Your task to perform on an android device: open app "Chime – Mobile Banking" (install if not already installed) Image 0: 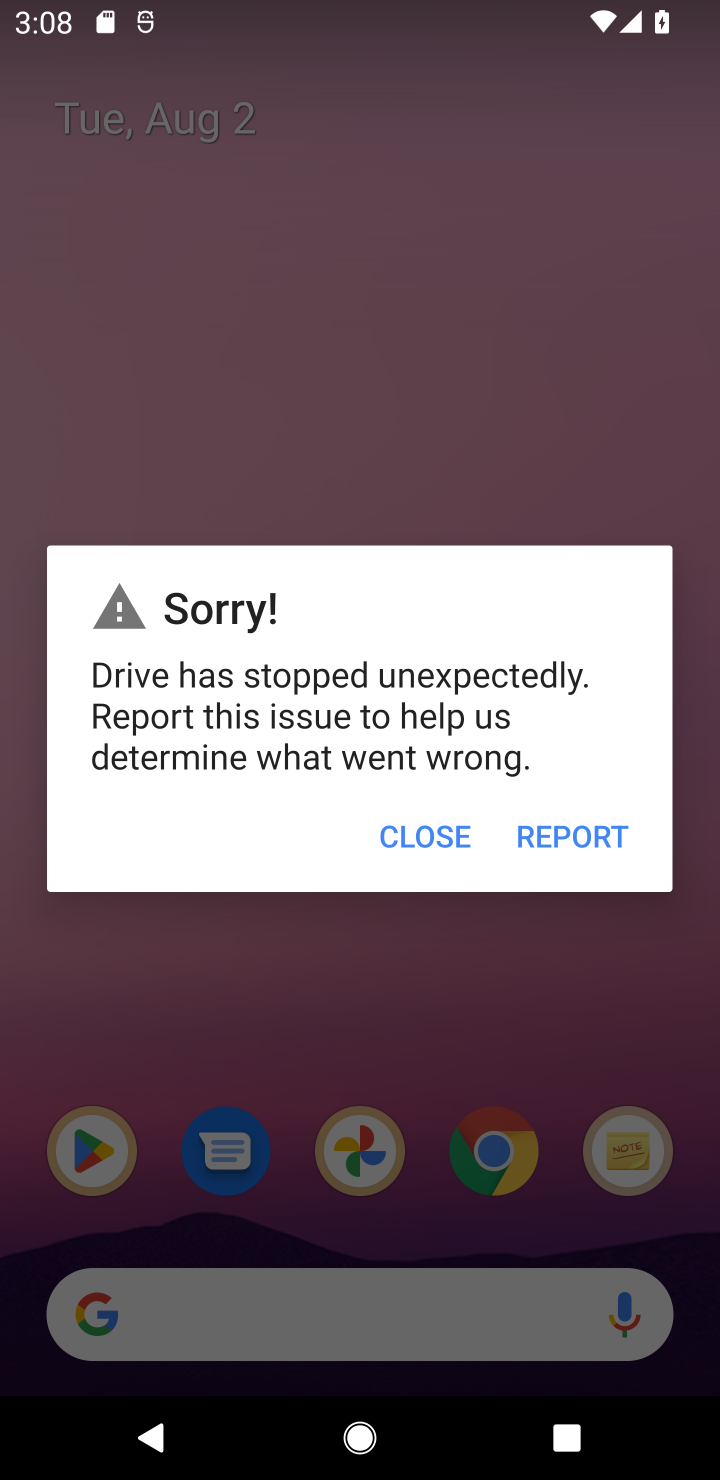
Step 0: press home button
Your task to perform on an android device: open app "Chime – Mobile Banking" (install if not already installed) Image 1: 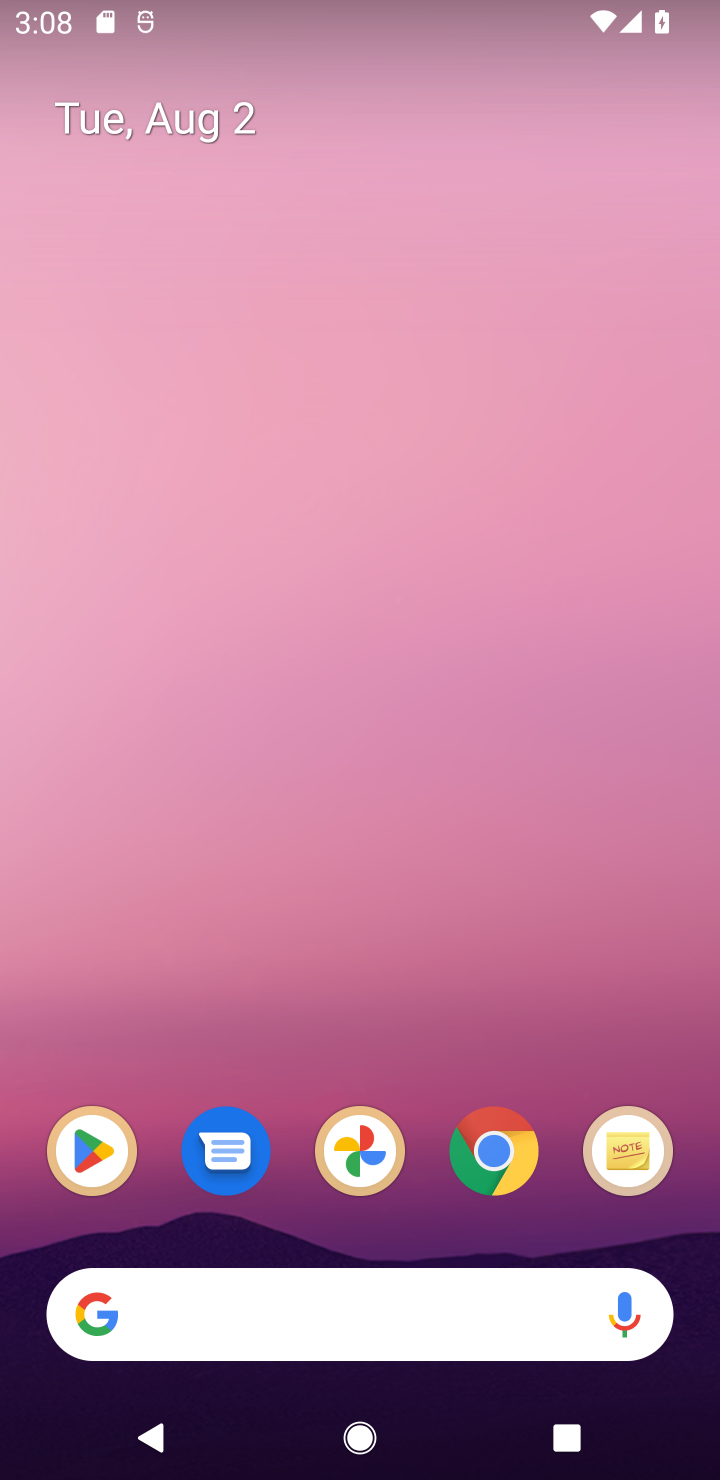
Step 1: click (97, 1153)
Your task to perform on an android device: open app "Chime – Mobile Banking" (install if not already installed) Image 2: 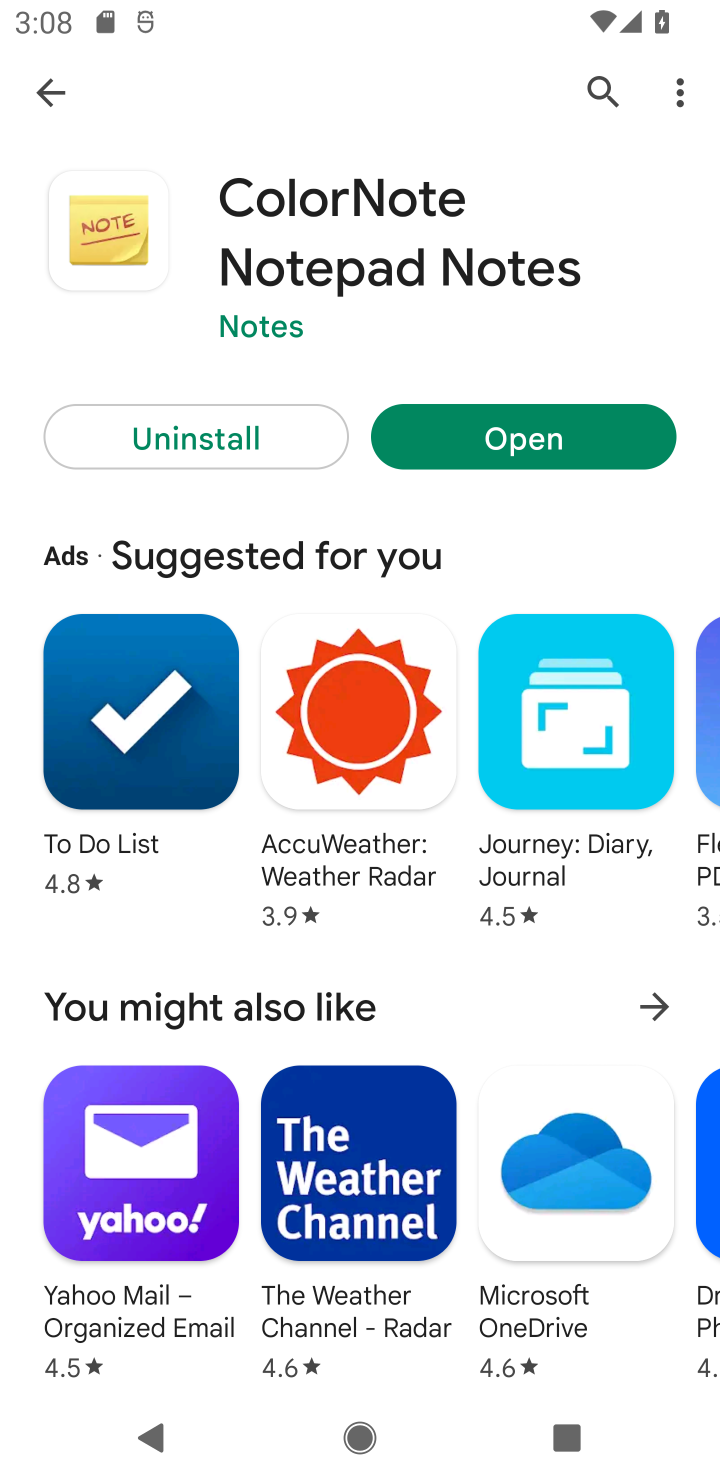
Step 2: click (588, 73)
Your task to perform on an android device: open app "Chime – Mobile Banking" (install if not already installed) Image 3: 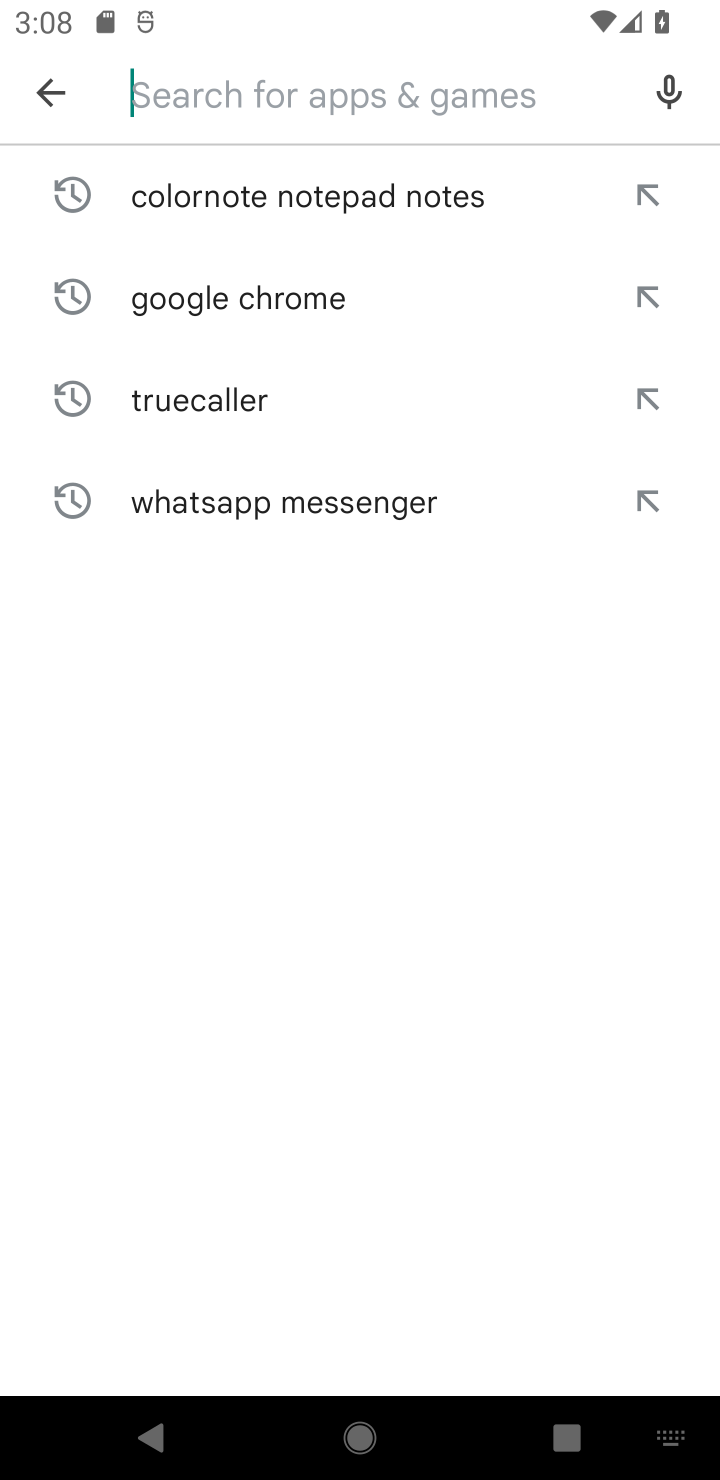
Step 3: type "chime - mobile banking"
Your task to perform on an android device: open app "Chime – Mobile Banking" (install if not already installed) Image 4: 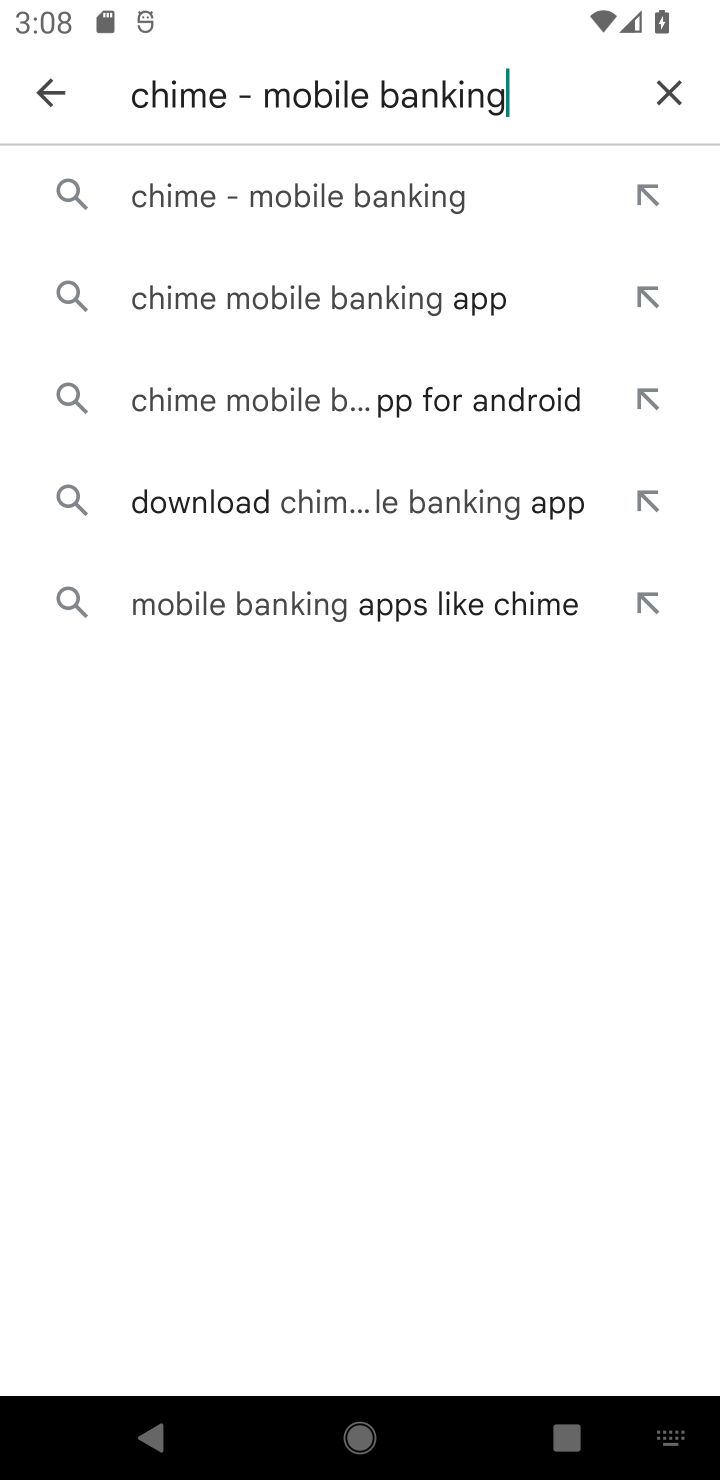
Step 4: click (455, 216)
Your task to perform on an android device: open app "Chime – Mobile Banking" (install if not already installed) Image 5: 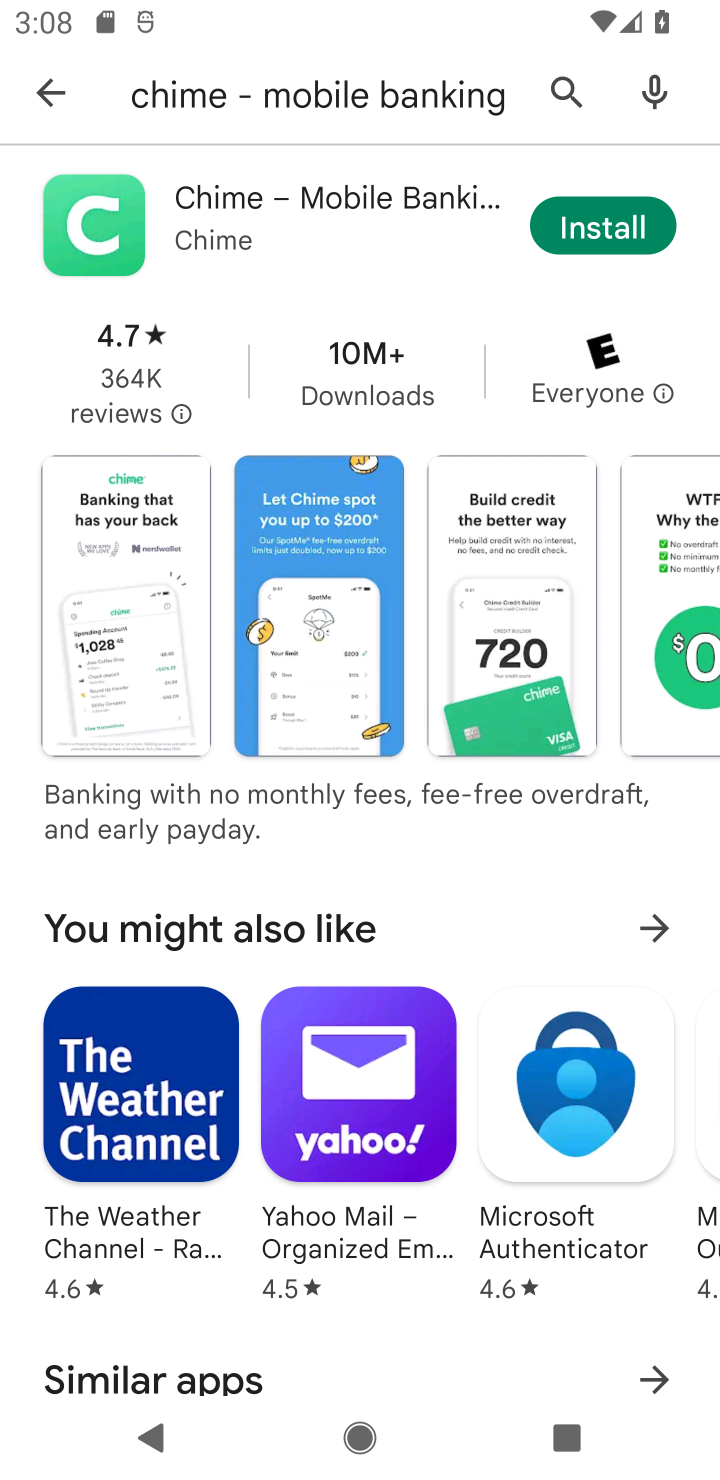
Step 5: click (398, 191)
Your task to perform on an android device: open app "Chime – Mobile Banking" (install if not already installed) Image 6: 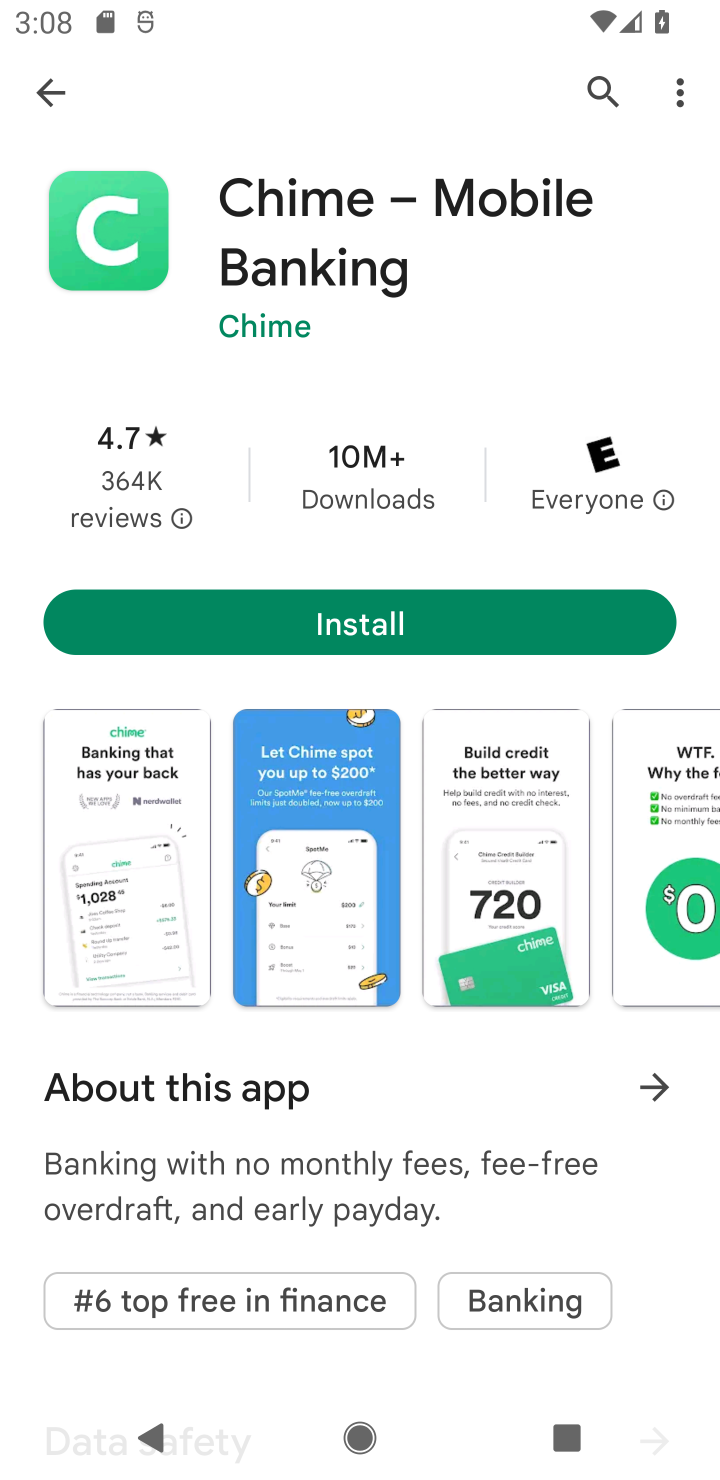
Step 6: click (302, 608)
Your task to perform on an android device: open app "Chime – Mobile Banking" (install if not already installed) Image 7: 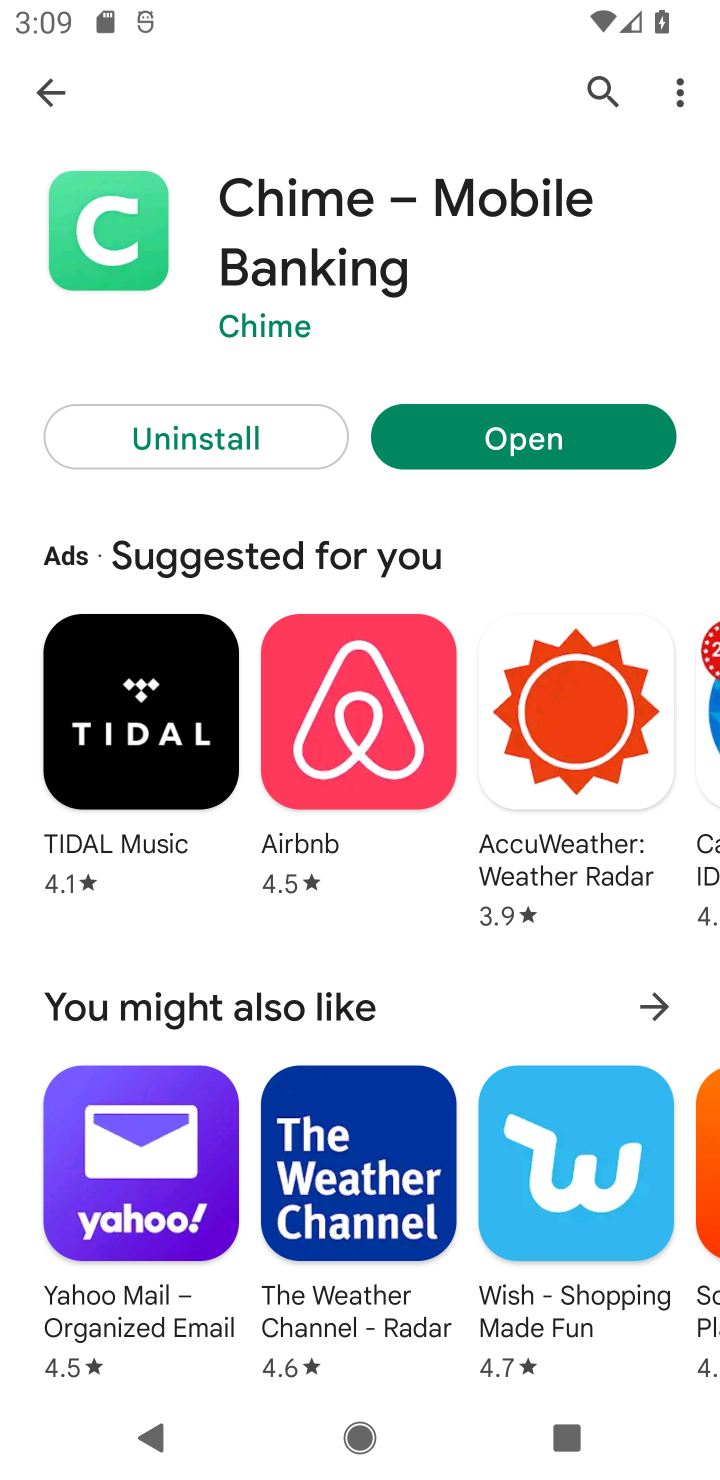
Step 7: click (538, 435)
Your task to perform on an android device: open app "Chime – Mobile Banking" (install if not already installed) Image 8: 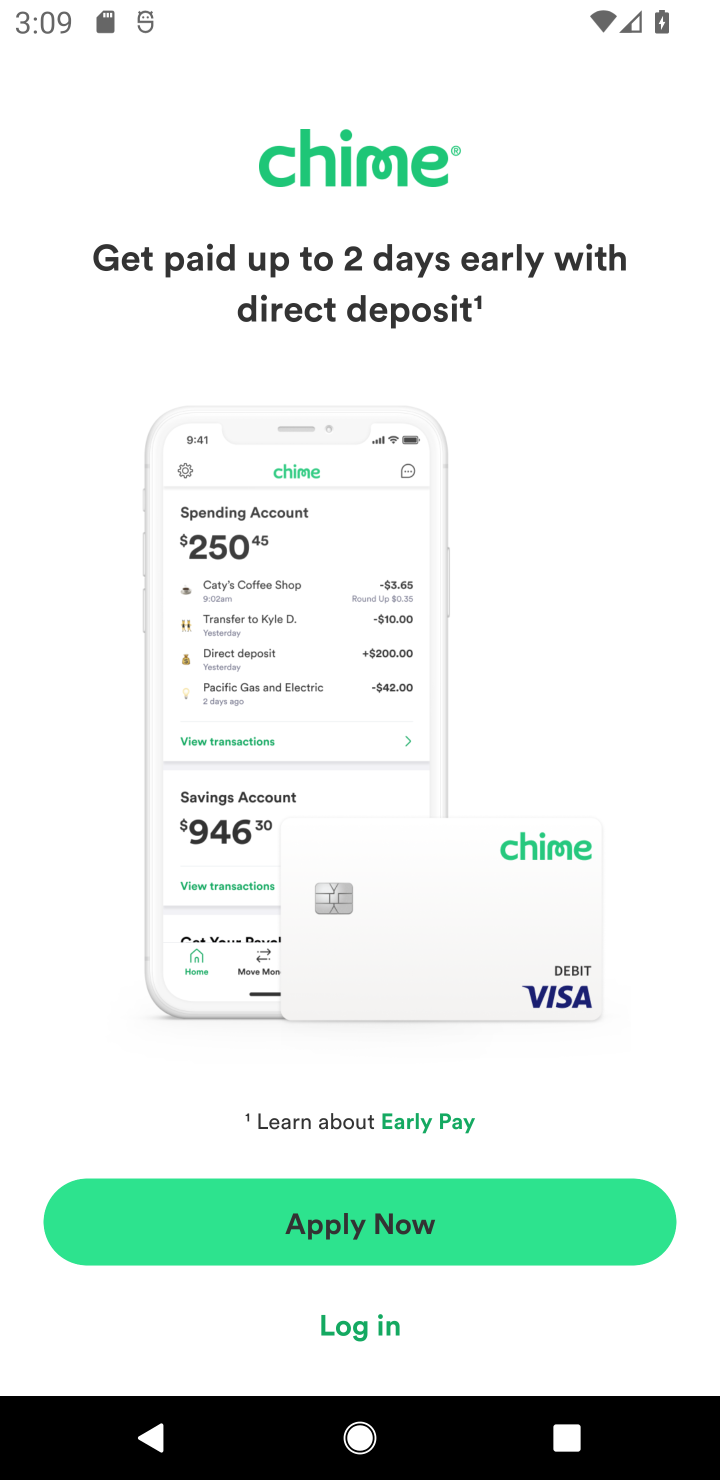
Step 8: task complete